Your task to perform on an android device: toggle javascript in the chrome app Image 0: 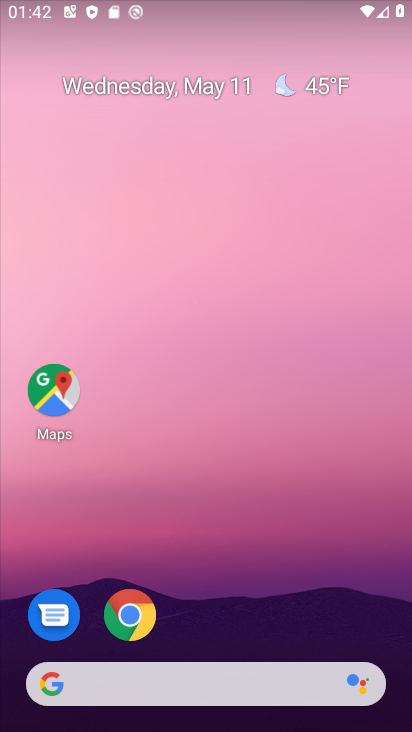
Step 0: drag from (345, 508) to (345, 256)
Your task to perform on an android device: toggle javascript in the chrome app Image 1: 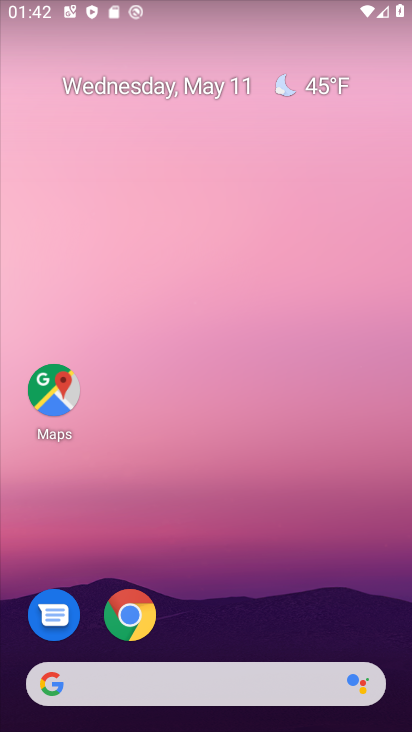
Step 1: drag from (371, 606) to (396, 185)
Your task to perform on an android device: toggle javascript in the chrome app Image 2: 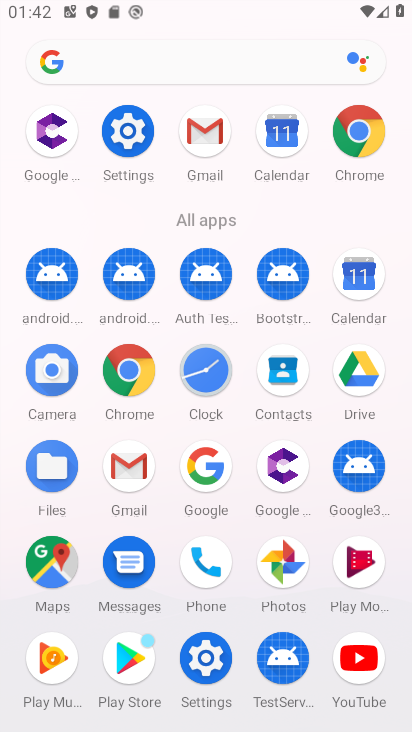
Step 2: click (359, 147)
Your task to perform on an android device: toggle javascript in the chrome app Image 3: 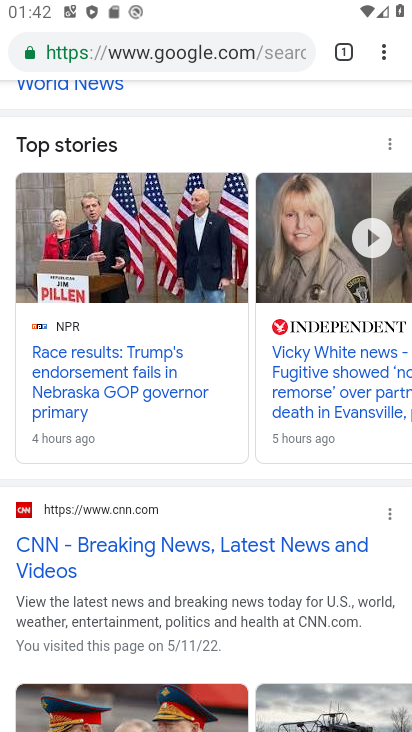
Step 3: drag from (382, 59) to (253, 582)
Your task to perform on an android device: toggle javascript in the chrome app Image 4: 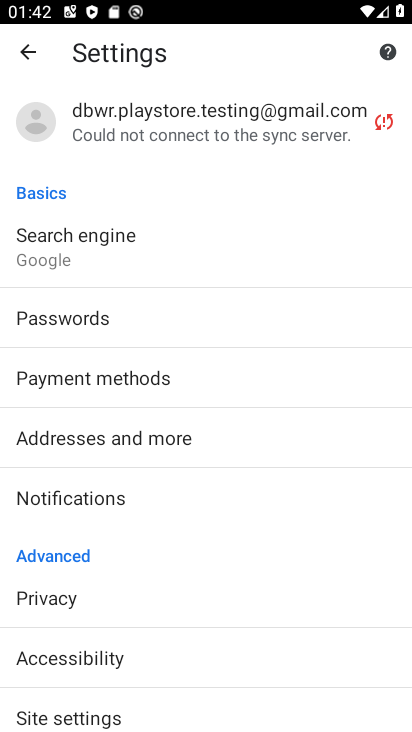
Step 4: drag from (218, 643) to (248, 355)
Your task to perform on an android device: toggle javascript in the chrome app Image 5: 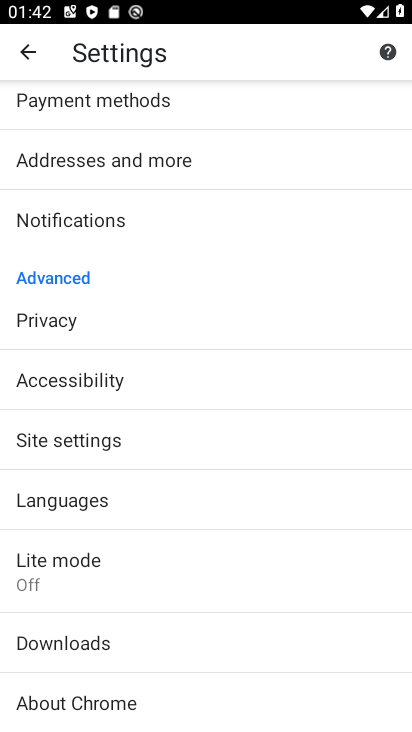
Step 5: drag from (210, 659) to (237, 456)
Your task to perform on an android device: toggle javascript in the chrome app Image 6: 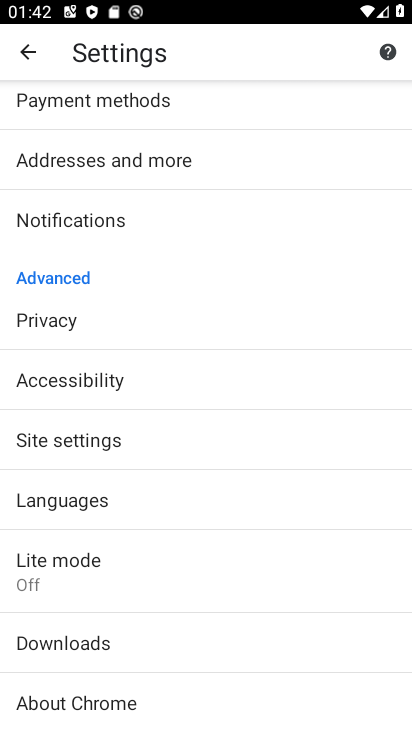
Step 6: click (79, 439)
Your task to perform on an android device: toggle javascript in the chrome app Image 7: 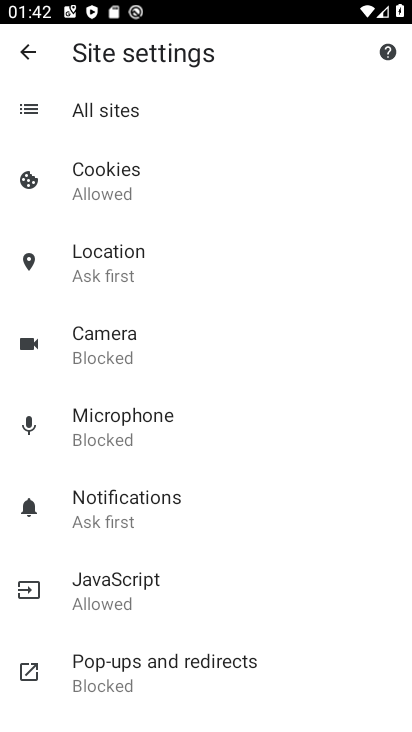
Step 7: click (182, 579)
Your task to perform on an android device: toggle javascript in the chrome app Image 8: 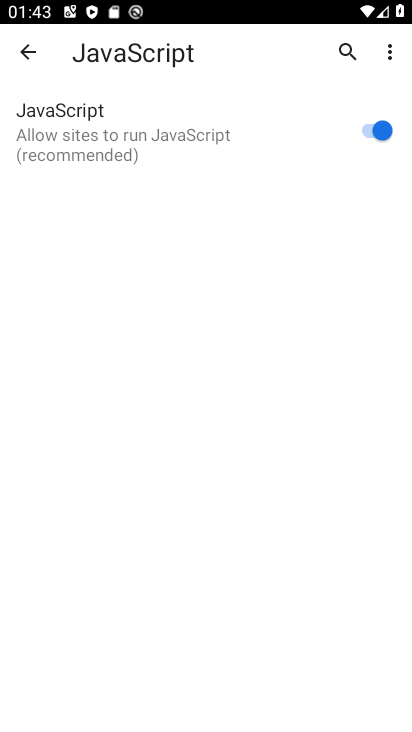
Step 8: click (361, 124)
Your task to perform on an android device: toggle javascript in the chrome app Image 9: 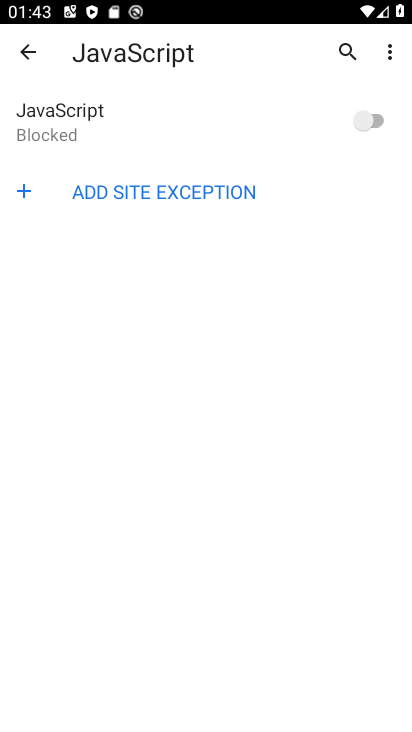
Step 9: task complete